Your task to perform on an android device: Go to Yahoo.com Image 0: 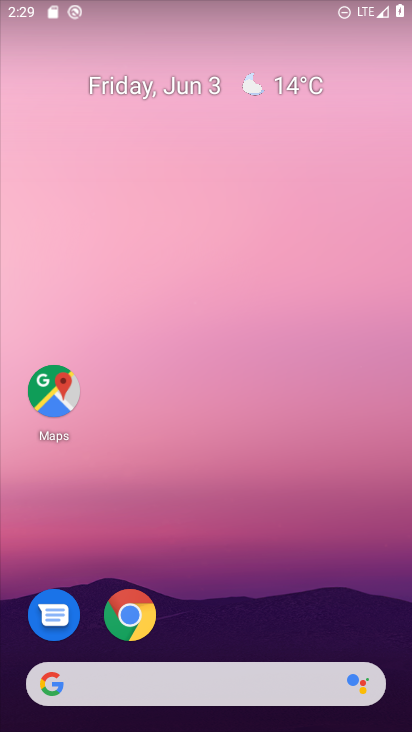
Step 0: drag from (301, 47) to (226, 7)
Your task to perform on an android device: Go to Yahoo.com Image 1: 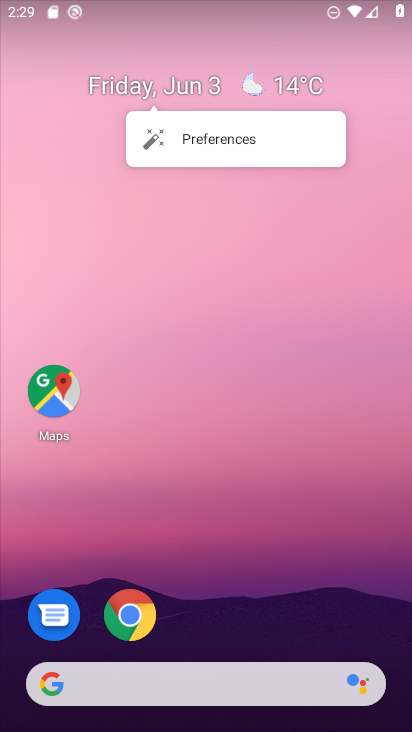
Step 1: click (189, 609)
Your task to perform on an android device: Go to Yahoo.com Image 2: 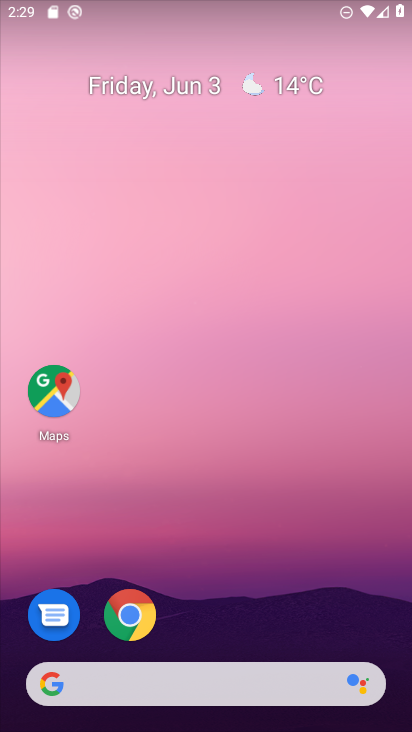
Step 2: drag from (188, 605) to (183, 67)
Your task to perform on an android device: Go to Yahoo.com Image 3: 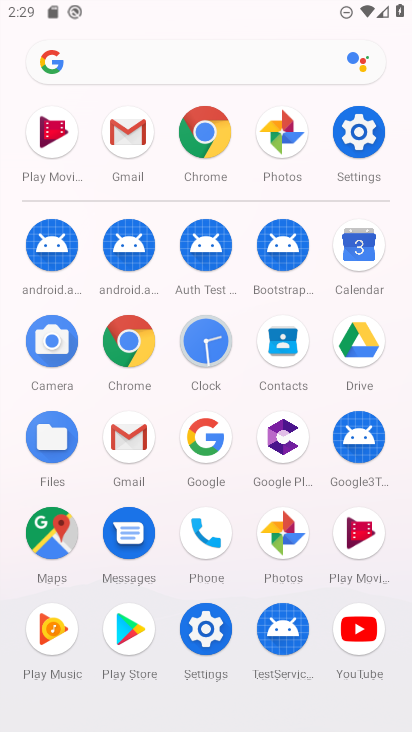
Step 3: click (147, 60)
Your task to perform on an android device: Go to Yahoo.com Image 4: 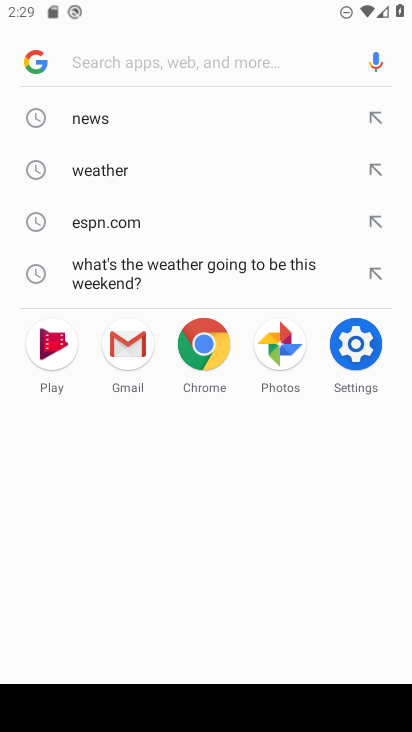
Step 4: click (145, 50)
Your task to perform on an android device: Go to Yahoo.com Image 5: 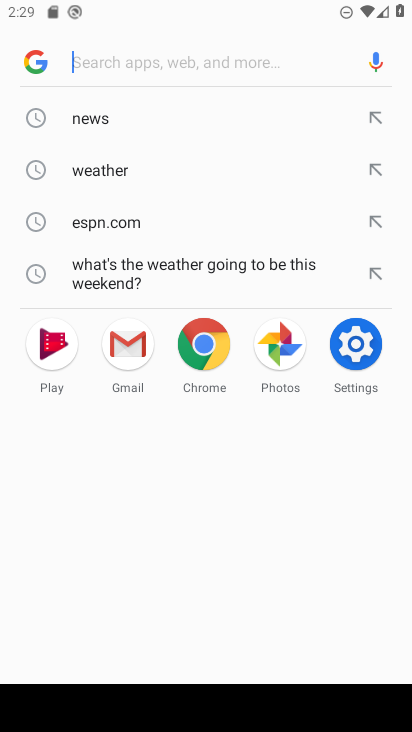
Step 5: type "Yahoo.com"
Your task to perform on an android device: Go to Yahoo.com Image 6: 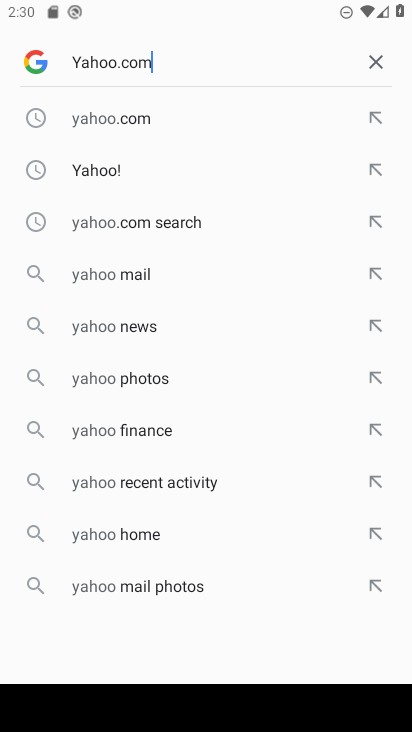
Step 6: type ""
Your task to perform on an android device: Go to Yahoo.com Image 7: 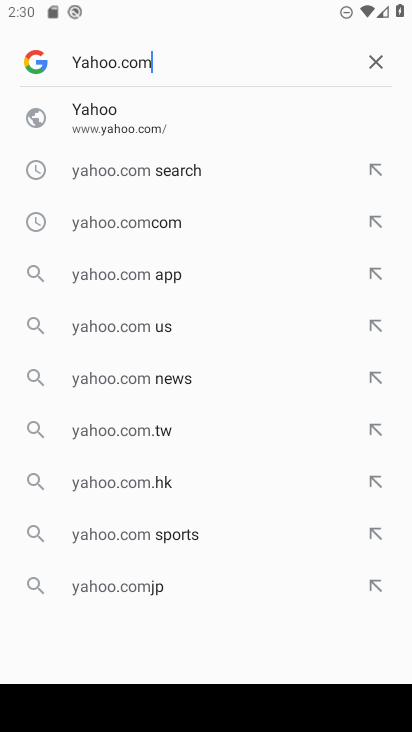
Step 7: click (168, 117)
Your task to perform on an android device: Go to Yahoo.com Image 8: 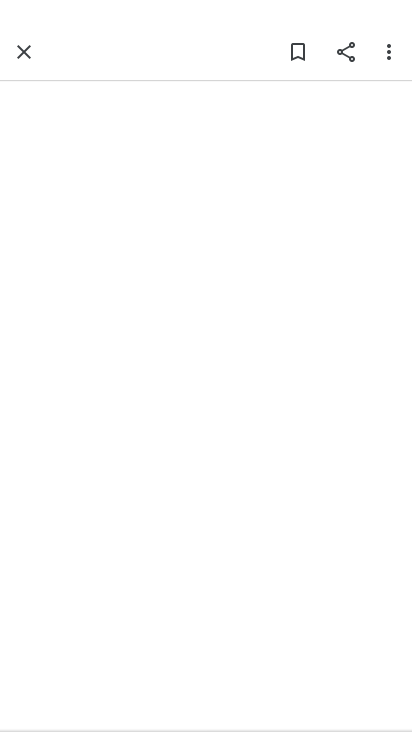
Step 8: task complete